Your task to perform on an android device: turn on notifications settings in the gmail app Image 0: 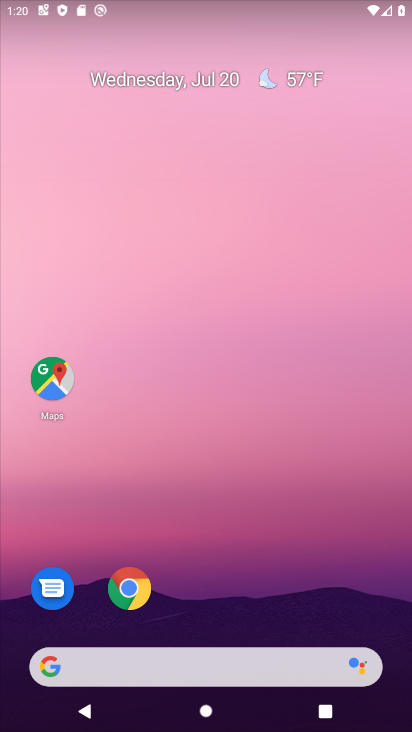
Step 0: drag from (27, 530) to (212, 60)
Your task to perform on an android device: turn on notifications settings in the gmail app Image 1: 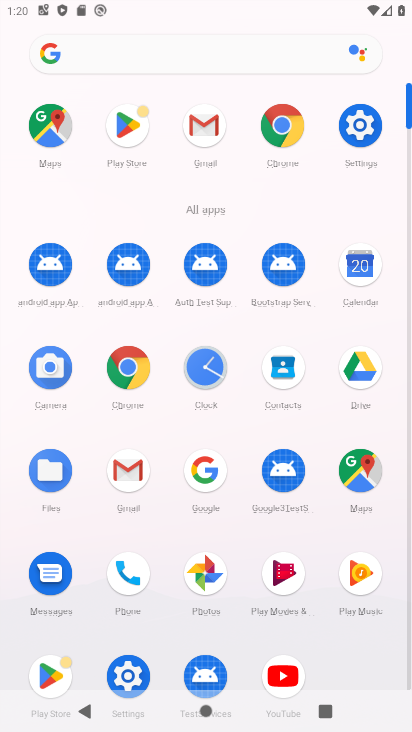
Step 1: click (357, 123)
Your task to perform on an android device: turn on notifications settings in the gmail app Image 2: 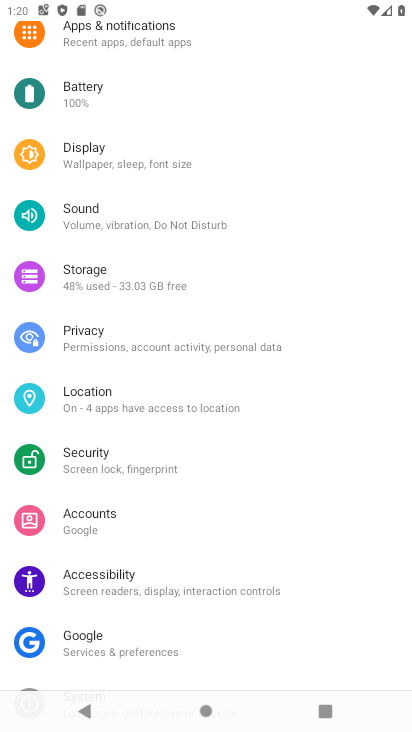
Step 2: click (161, 27)
Your task to perform on an android device: turn on notifications settings in the gmail app Image 3: 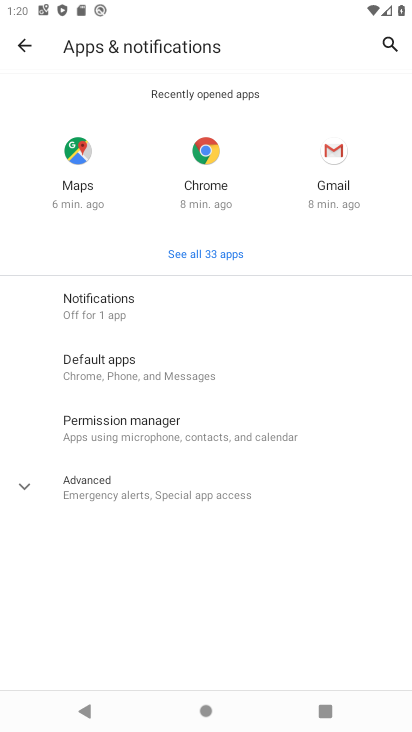
Step 3: click (84, 302)
Your task to perform on an android device: turn on notifications settings in the gmail app Image 4: 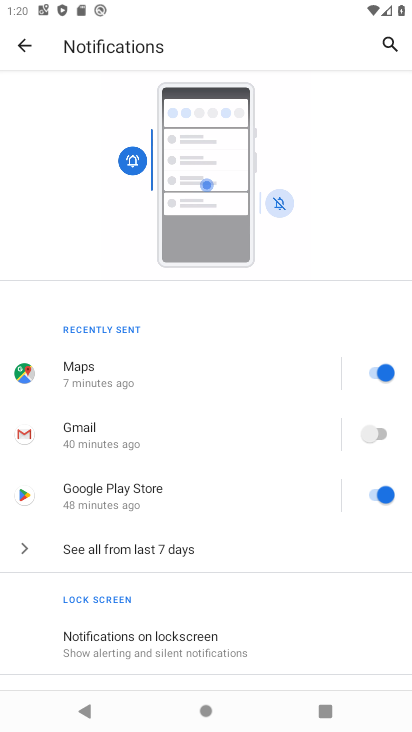
Step 4: click (367, 433)
Your task to perform on an android device: turn on notifications settings in the gmail app Image 5: 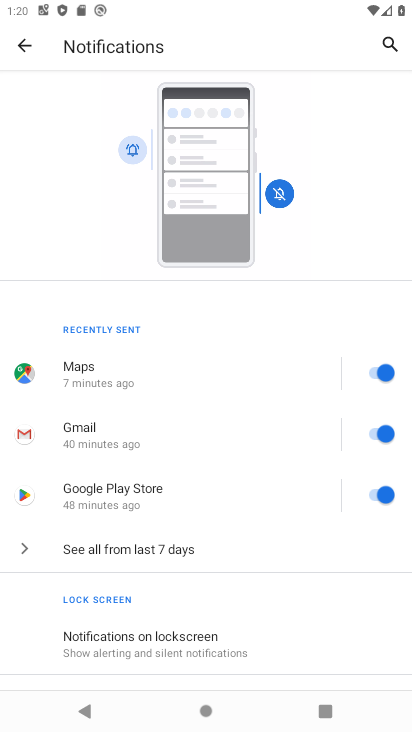
Step 5: task complete